Your task to perform on an android device: Open location settings Image 0: 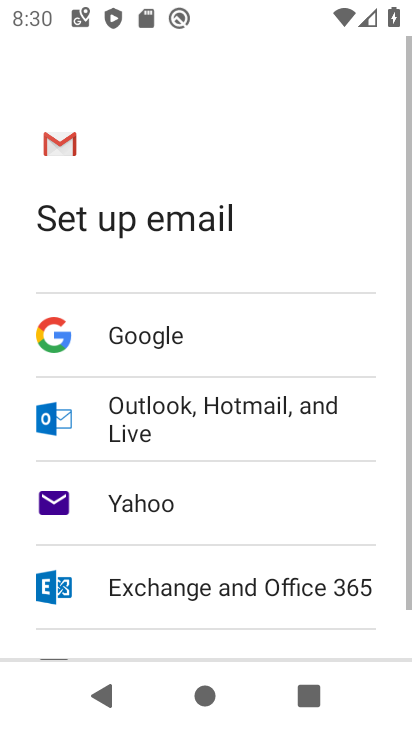
Step 0: press home button
Your task to perform on an android device: Open location settings Image 1: 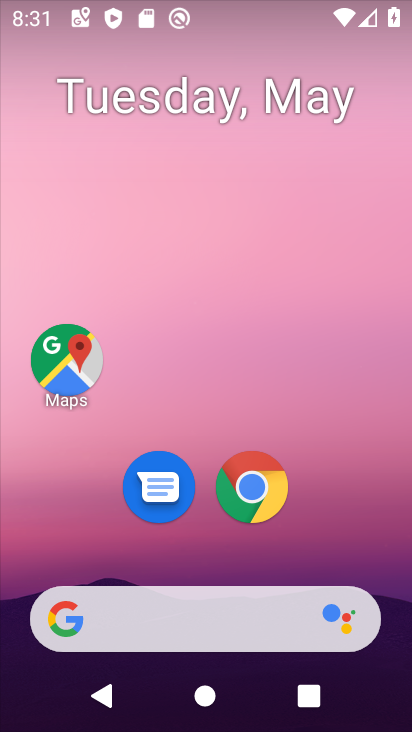
Step 1: drag from (379, 536) to (385, 174)
Your task to perform on an android device: Open location settings Image 2: 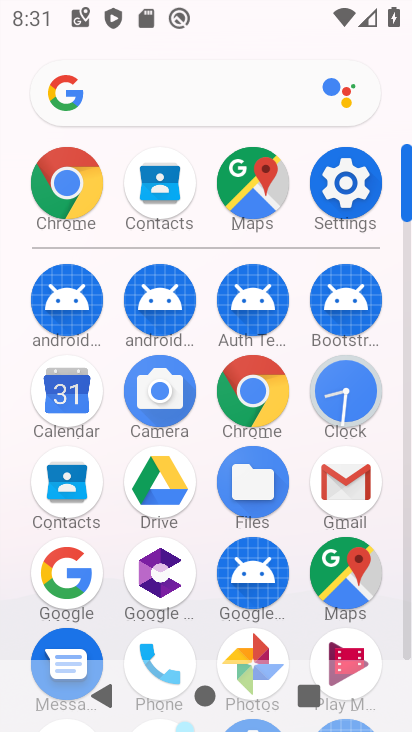
Step 2: click (348, 201)
Your task to perform on an android device: Open location settings Image 3: 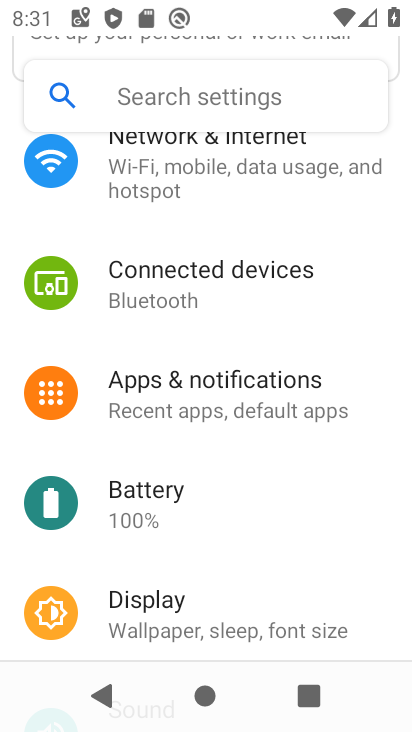
Step 3: drag from (355, 229) to (357, 348)
Your task to perform on an android device: Open location settings Image 4: 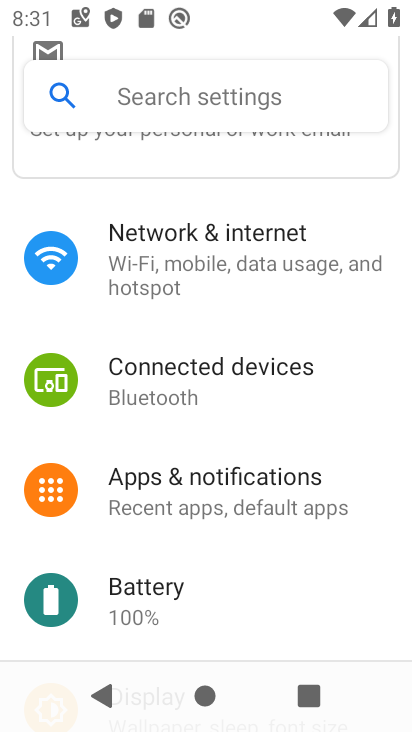
Step 4: drag from (352, 465) to (349, 376)
Your task to perform on an android device: Open location settings Image 5: 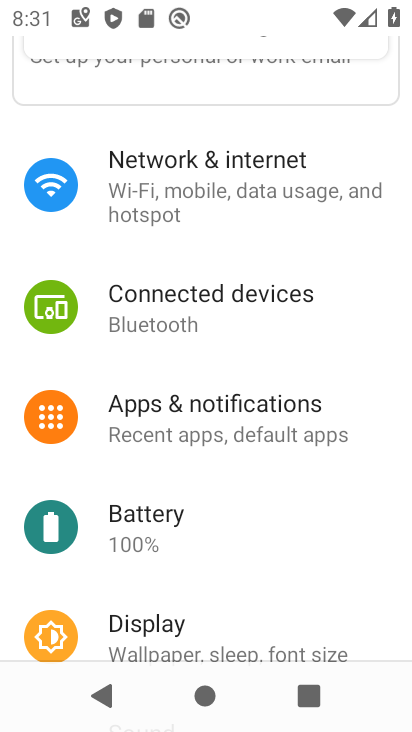
Step 5: drag from (343, 525) to (334, 371)
Your task to perform on an android device: Open location settings Image 6: 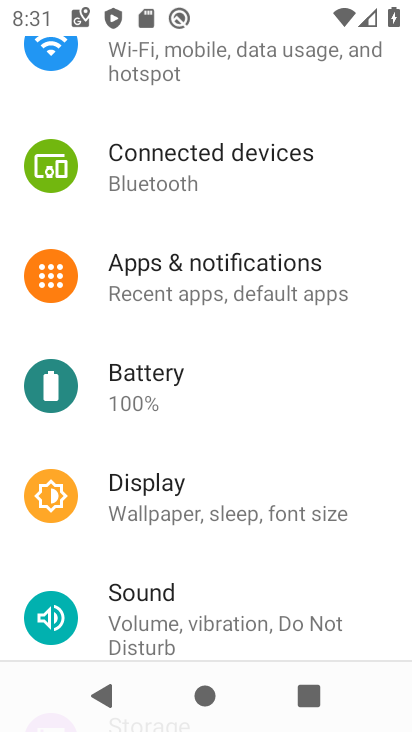
Step 6: drag from (317, 553) to (312, 387)
Your task to perform on an android device: Open location settings Image 7: 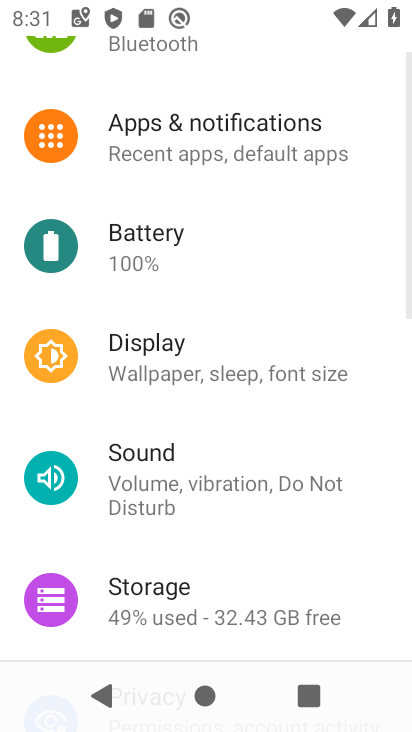
Step 7: drag from (357, 558) to (365, 435)
Your task to perform on an android device: Open location settings Image 8: 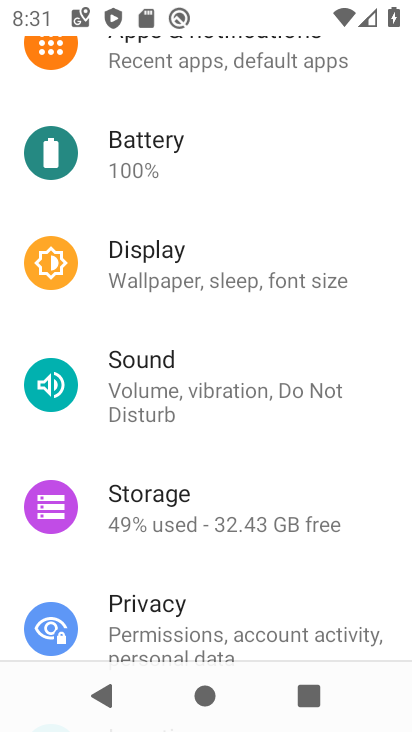
Step 8: drag from (377, 571) to (375, 457)
Your task to perform on an android device: Open location settings Image 9: 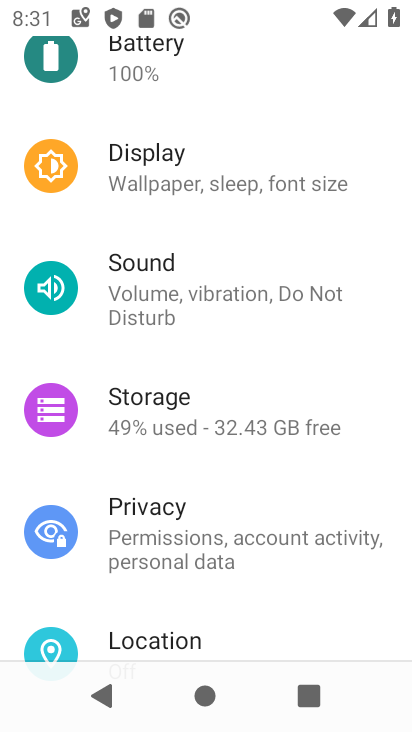
Step 9: drag from (366, 600) to (358, 433)
Your task to perform on an android device: Open location settings Image 10: 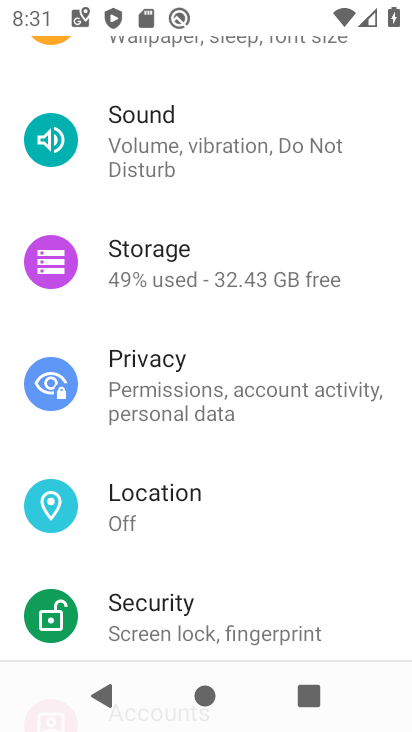
Step 10: drag from (356, 513) to (358, 397)
Your task to perform on an android device: Open location settings Image 11: 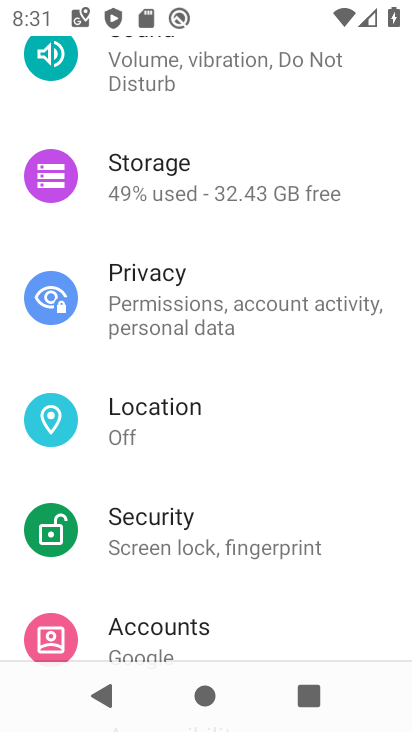
Step 11: drag from (357, 531) to (359, 408)
Your task to perform on an android device: Open location settings Image 12: 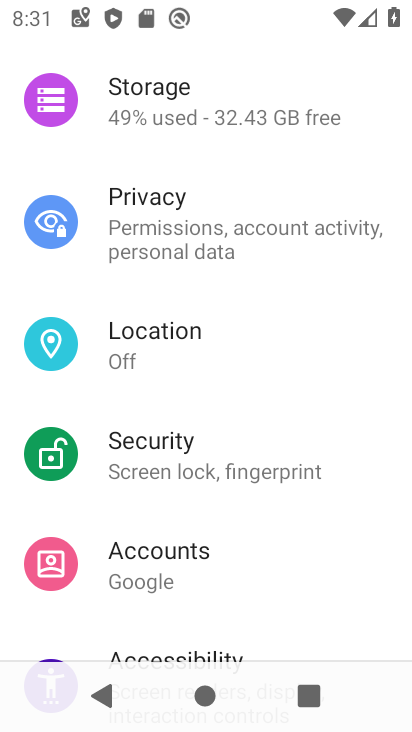
Step 12: drag from (342, 583) to (336, 511)
Your task to perform on an android device: Open location settings Image 13: 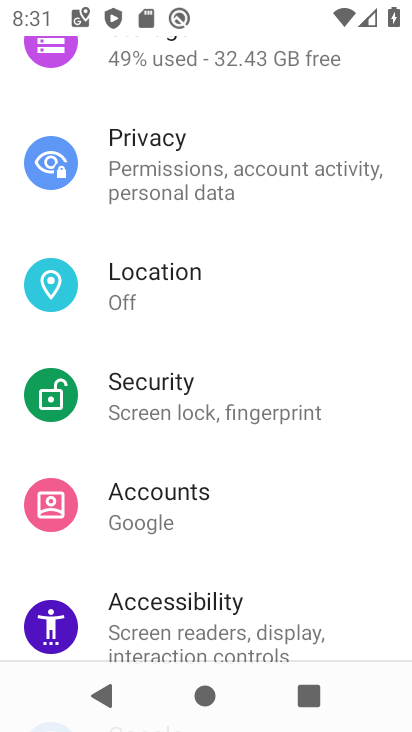
Step 13: click (238, 303)
Your task to perform on an android device: Open location settings Image 14: 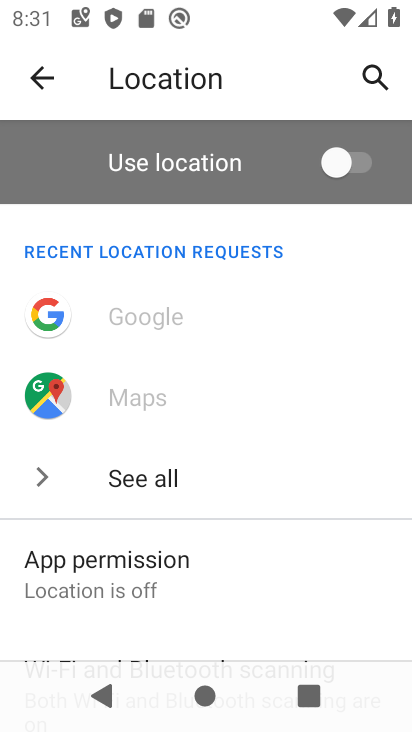
Step 14: task complete